Your task to perform on an android device: set the timer Image 0: 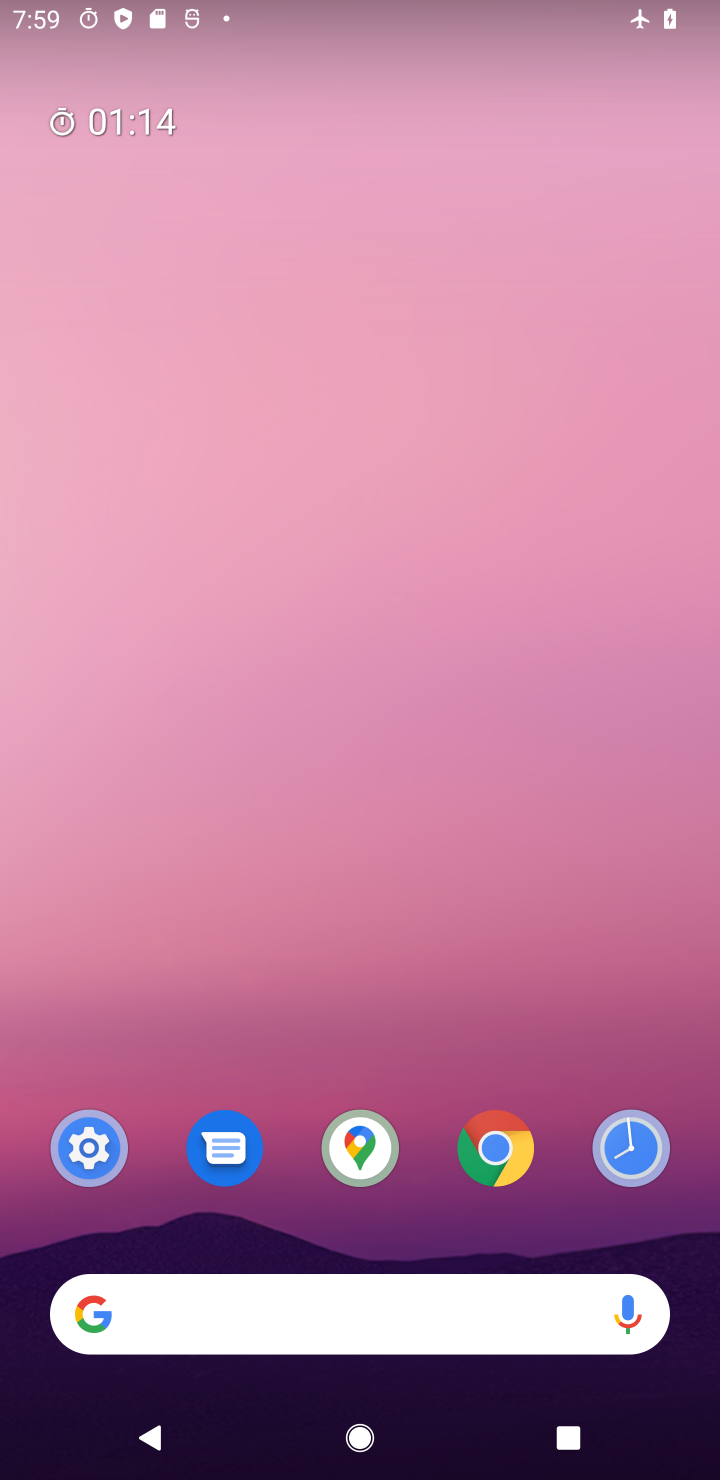
Step 0: click (639, 1154)
Your task to perform on an android device: set the timer Image 1: 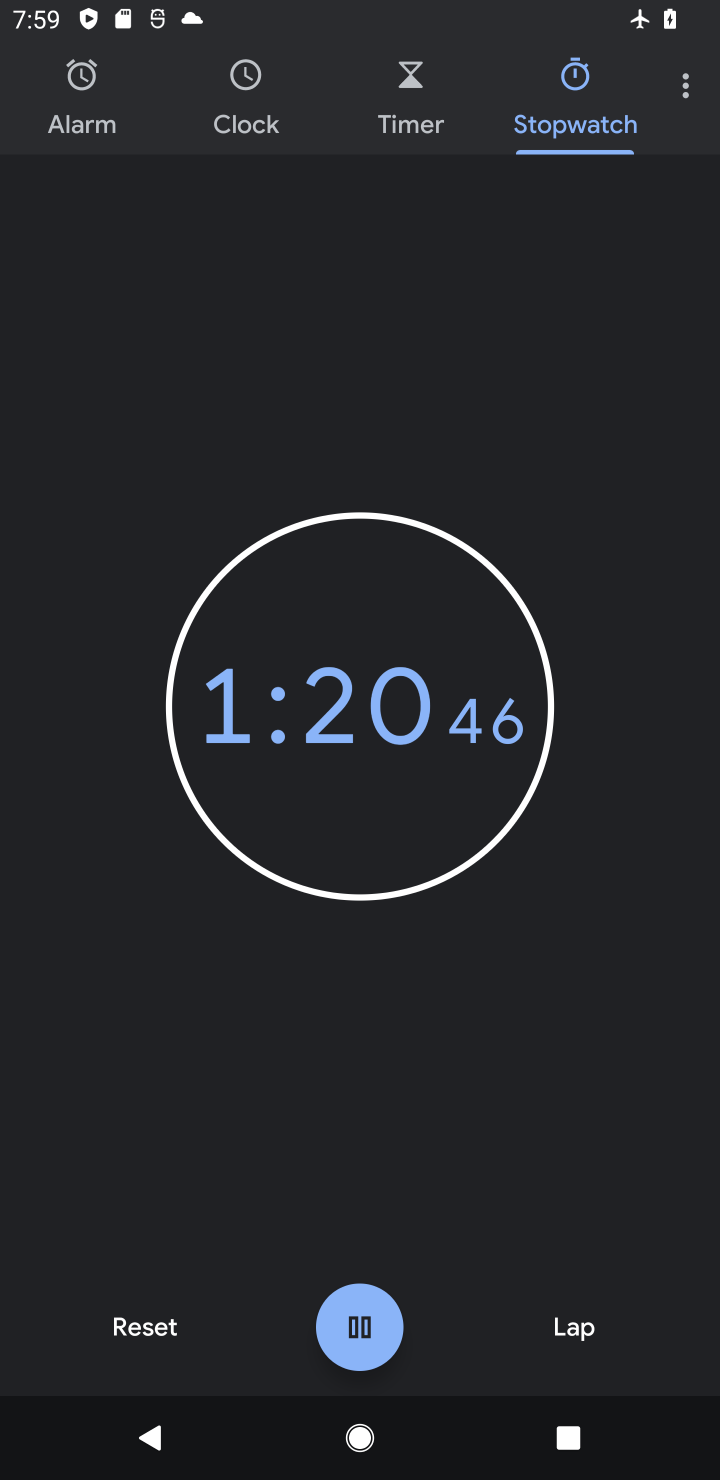
Step 1: click (412, 103)
Your task to perform on an android device: set the timer Image 2: 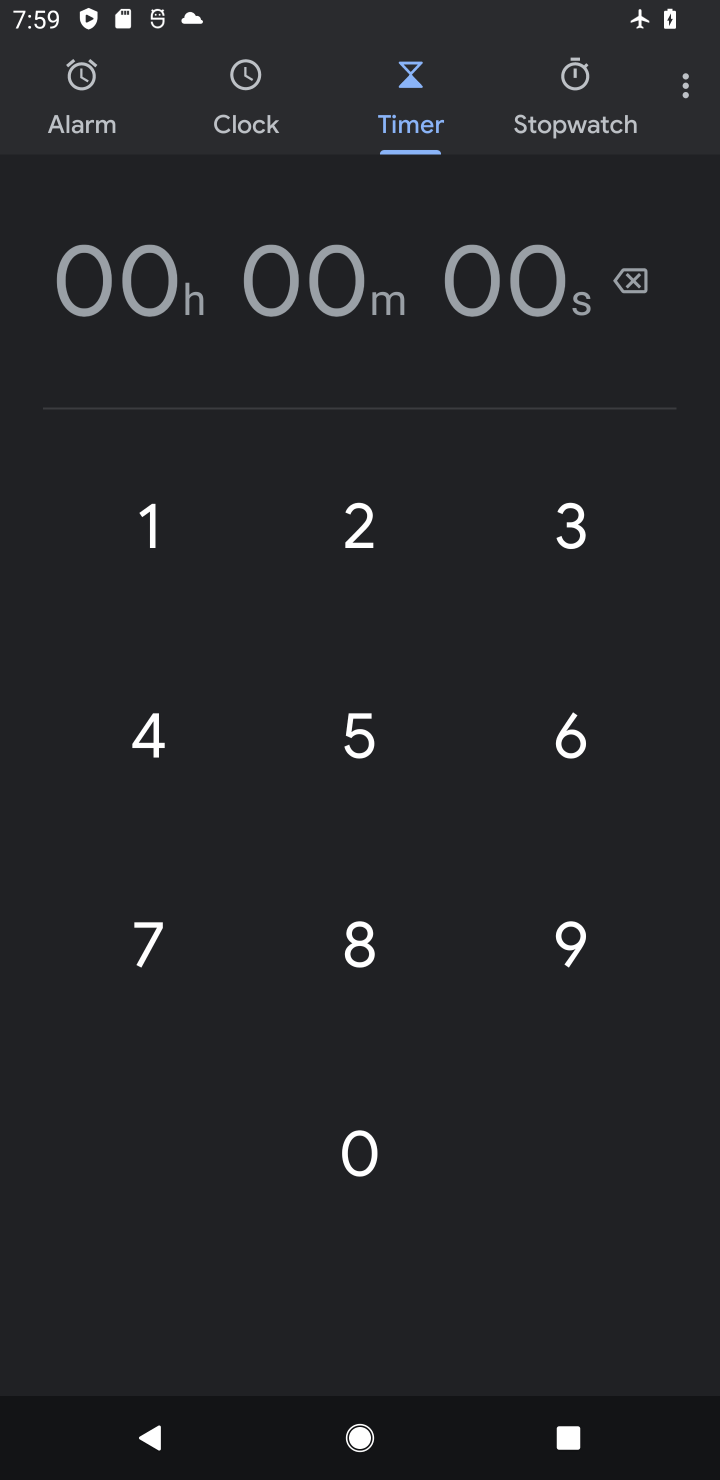
Step 2: type "8000"
Your task to perform on an android device: set the timer Image 3: 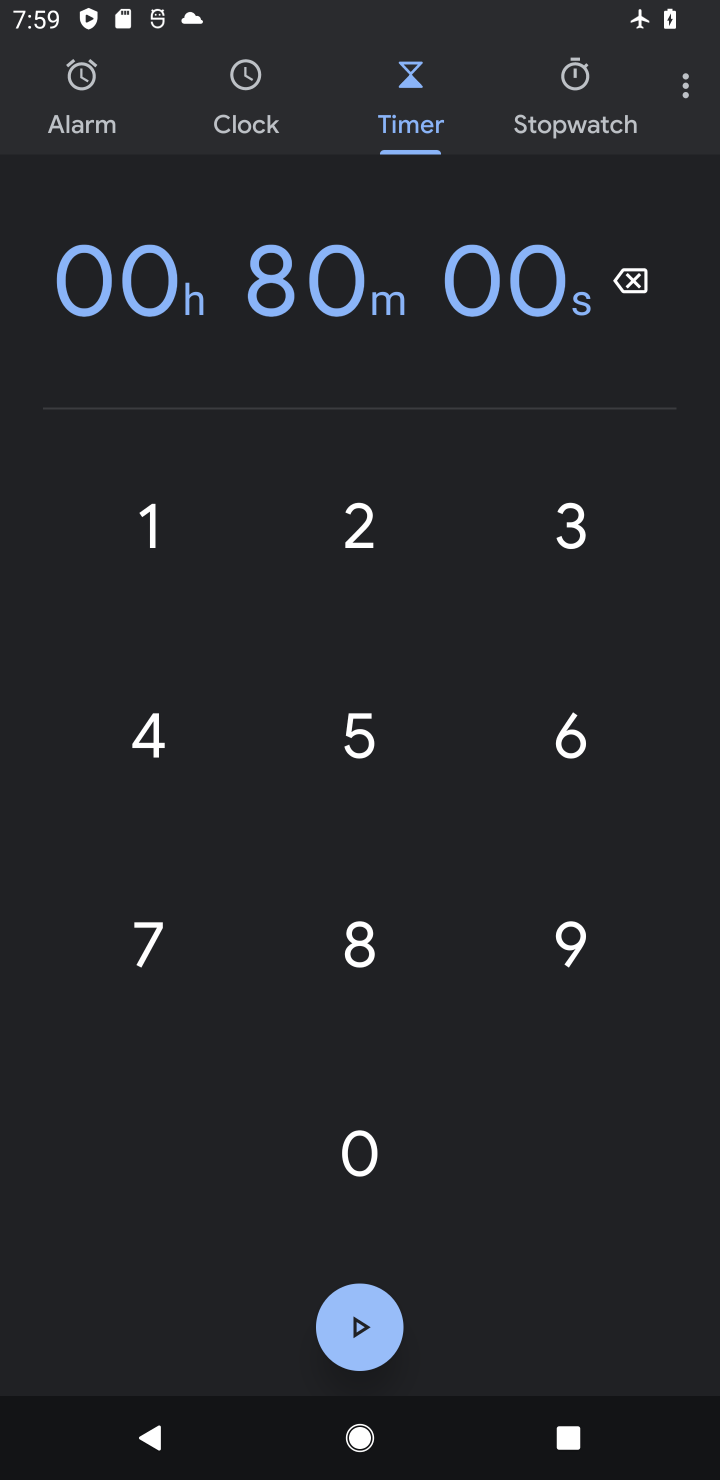
Step 3: click (382, 1337)
Your task to perform on an android device: set the timer Image 4: 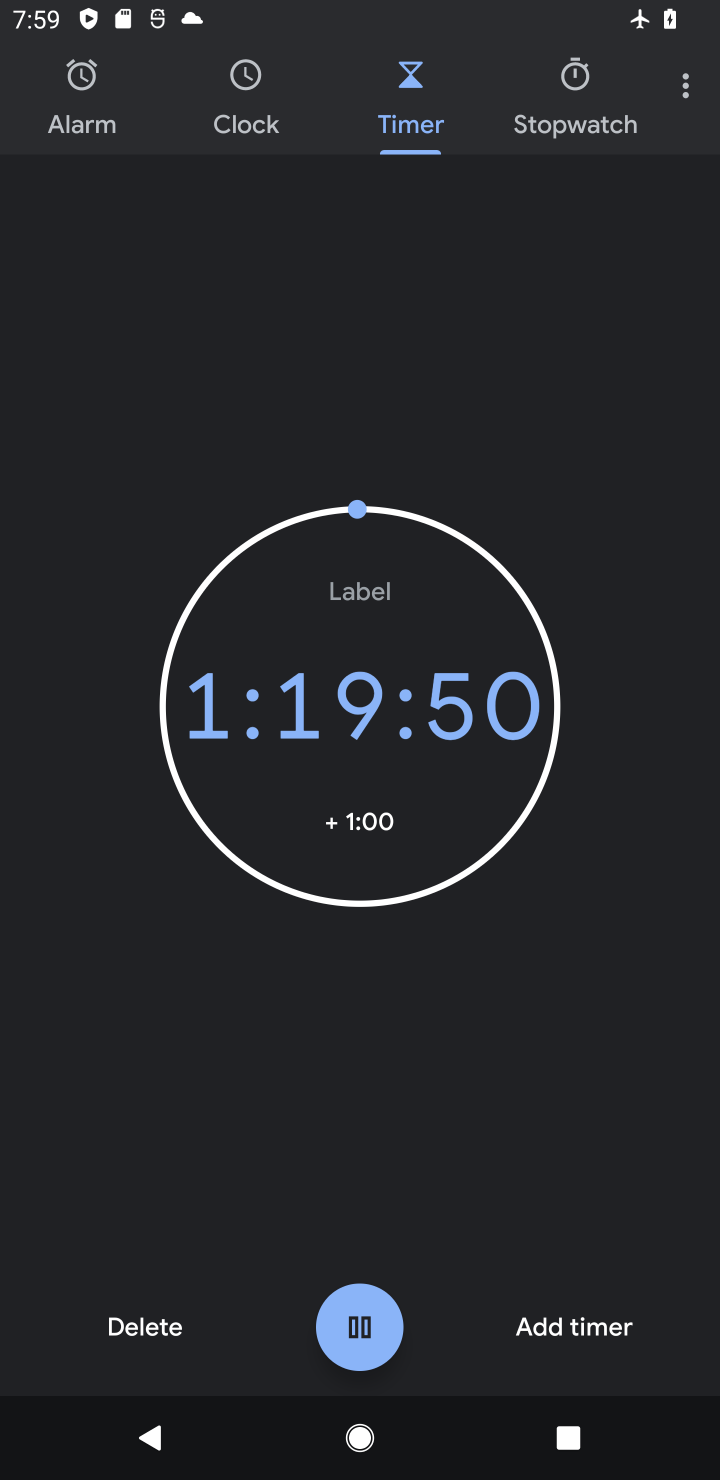
Step 4: task complete